Your task to perform on an android device: Open ESPN.com Image 0: 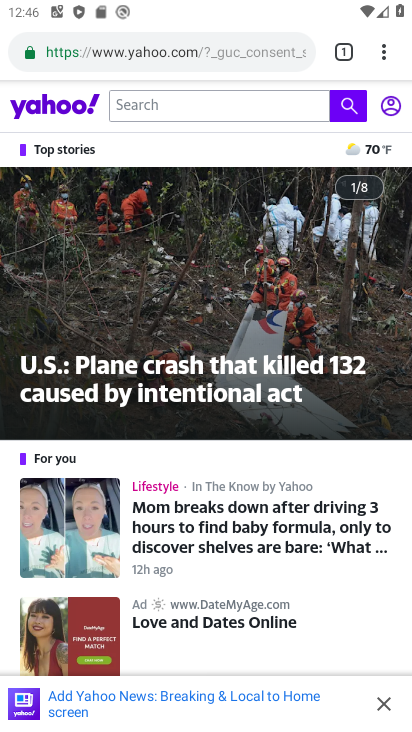
Step 0: press home button
Your task to perform on an android device: Open ESPN.com Image 1: 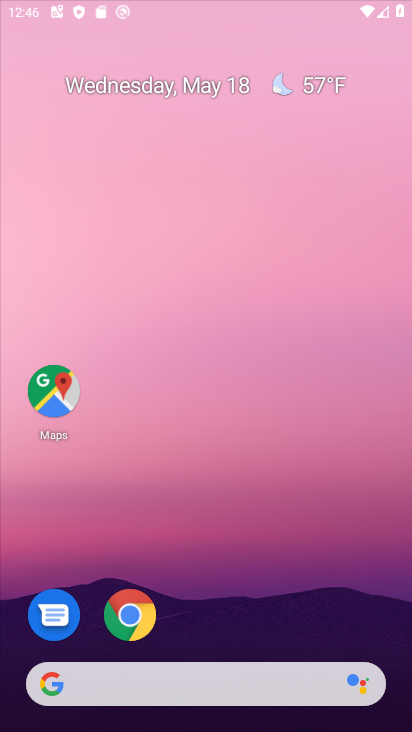
Step 1: drag from (390, 626) to (236, 7)
Your task to perform on an android device: Open ESPN.com Image 2: 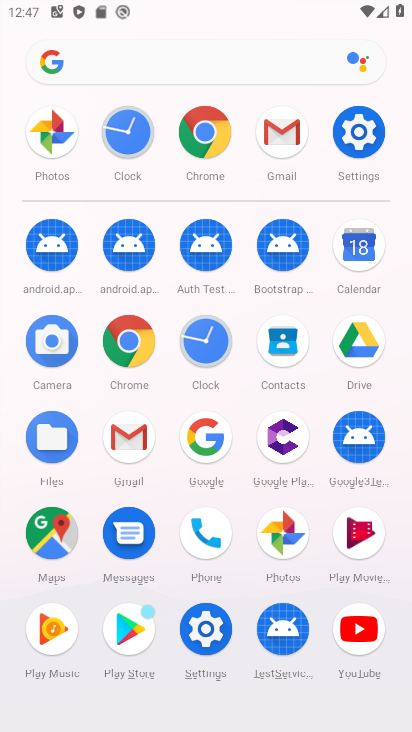
Step 2: click (211, 135)
Your task to perform on an android device: Open ESPN.com Image 3: 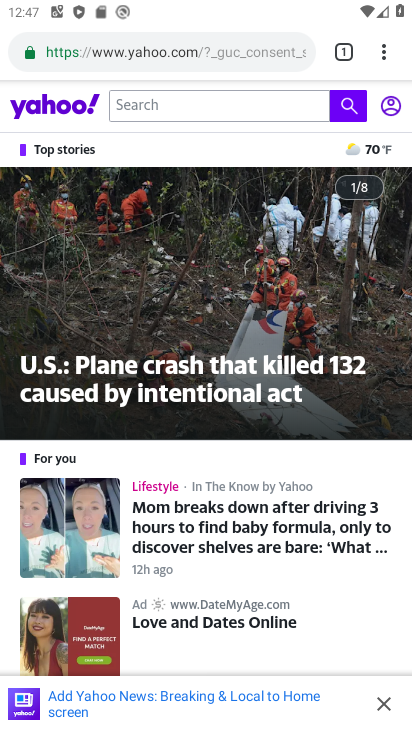
Step 3: press back button
Your task to perform on an android device: Open ESPN.com Image 4: 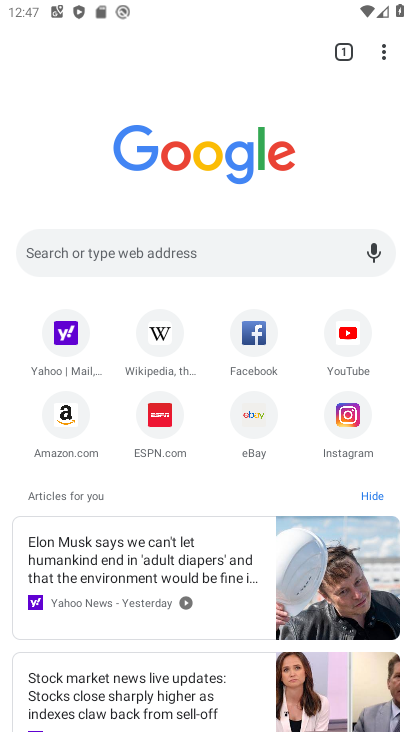
Step 4: click (163, 429)
Your task to perform on an android device: Open ESPN.com Image 5: 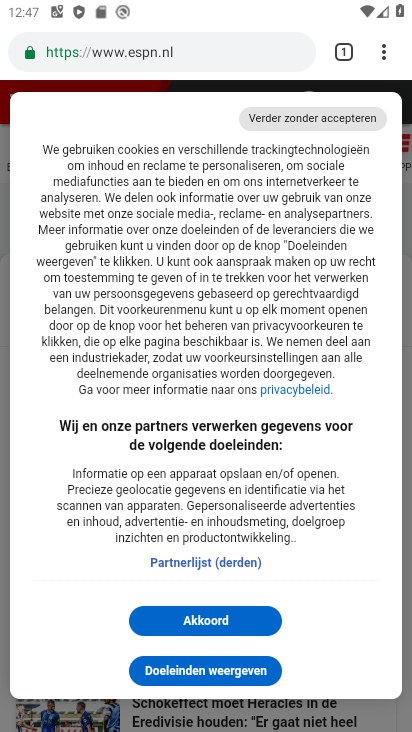
Step 5: task complete